Your task to perform on an android device: Clear the shopping cart on amazon. Image 0: 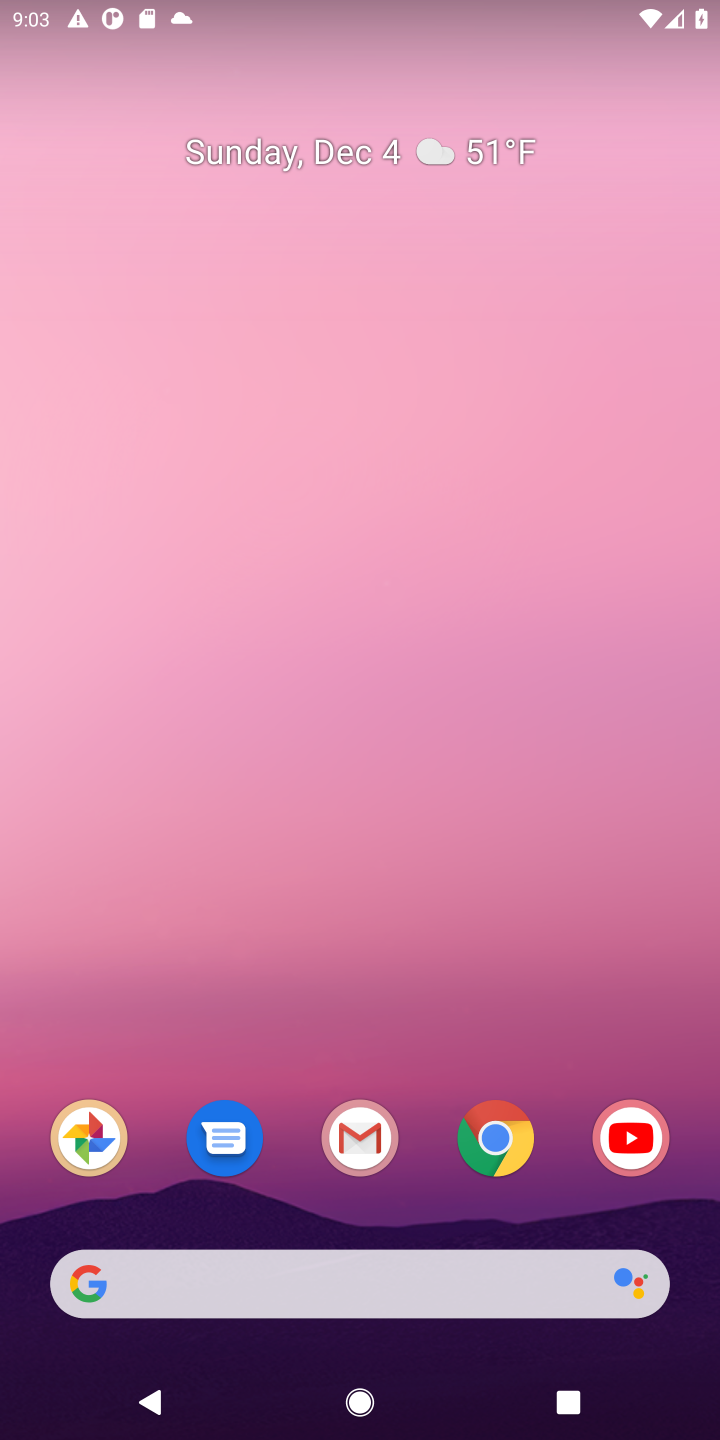
Step 0: click (508, 1147)
Your task to perform on an android device: Clear the shopping cart on amazon. Image 1: 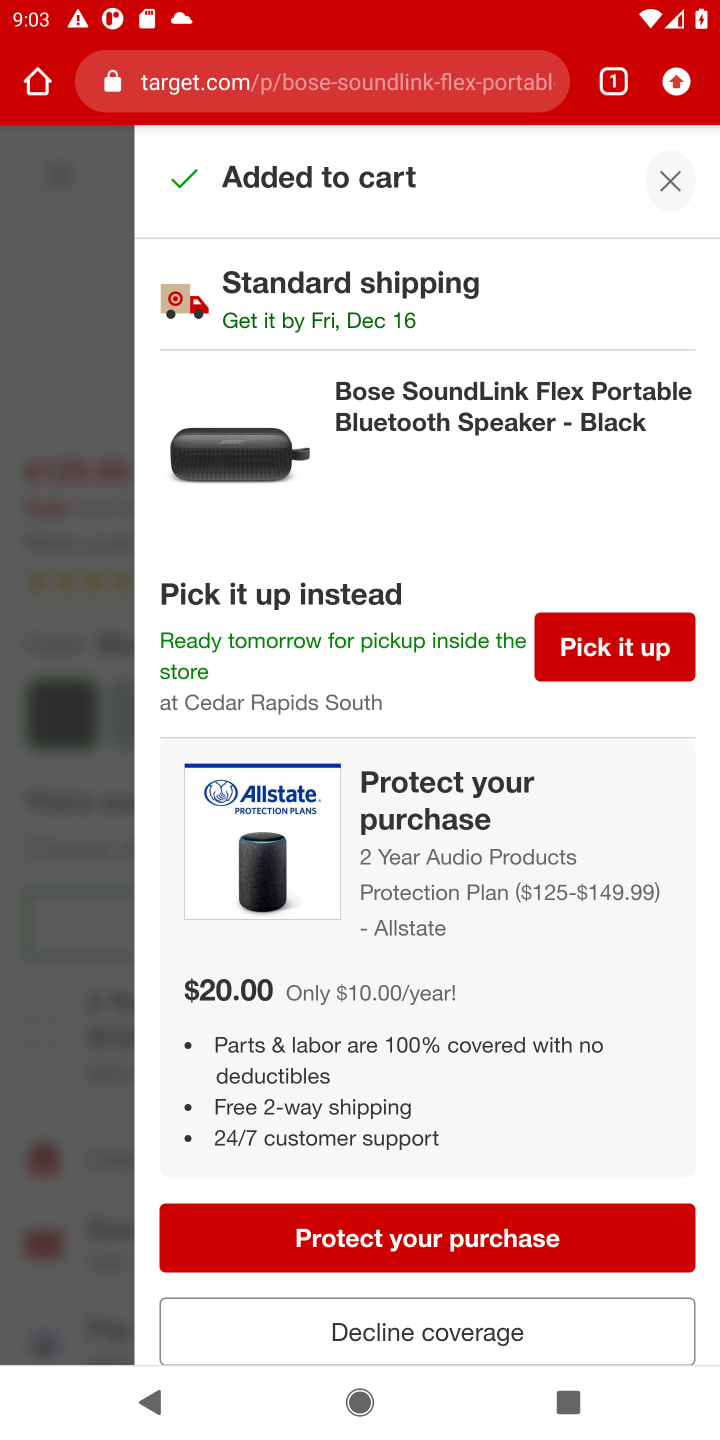
Step 1: click (440, 82)
Your task to perform on an android device: Clear the shopping cart on amazon. Image 2: 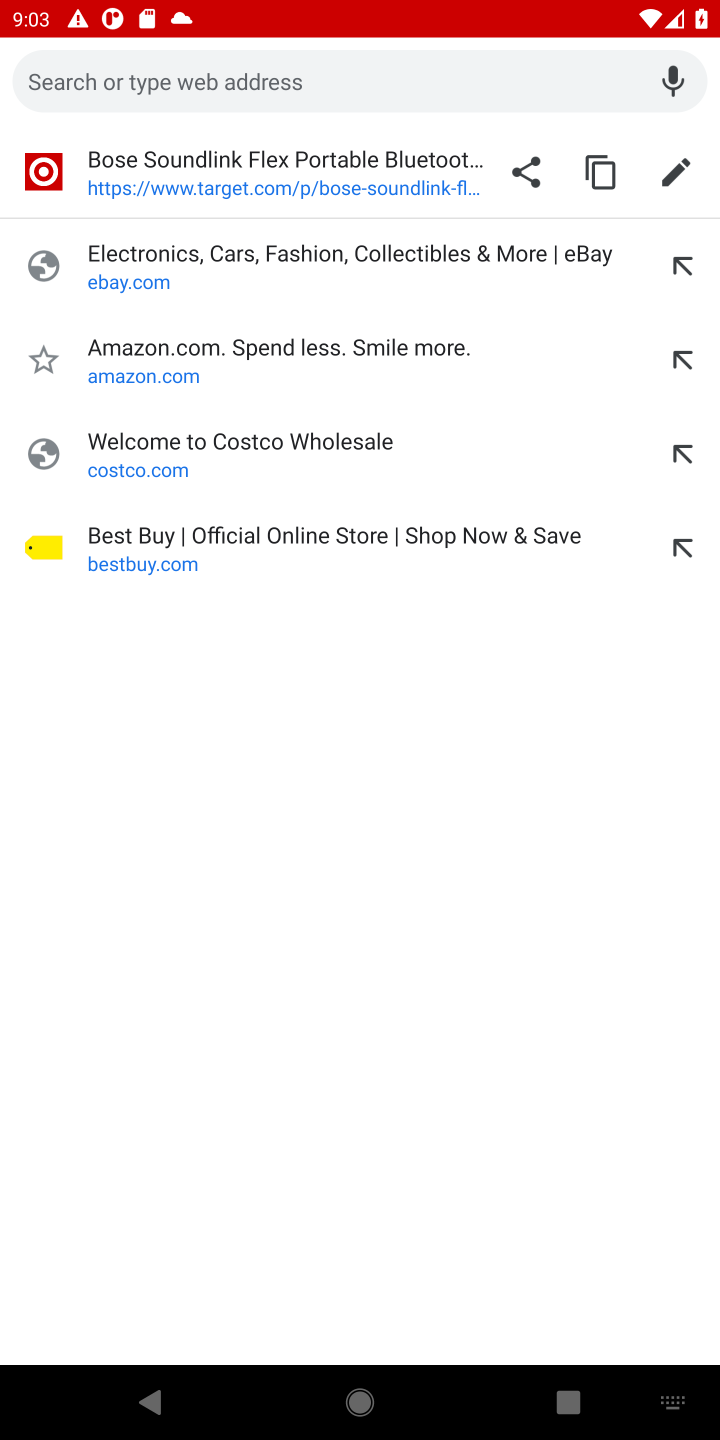
Step 2: click (345, 351)
Your task to perform on an android device: Clear the shopping cart on amazon. Image 3: 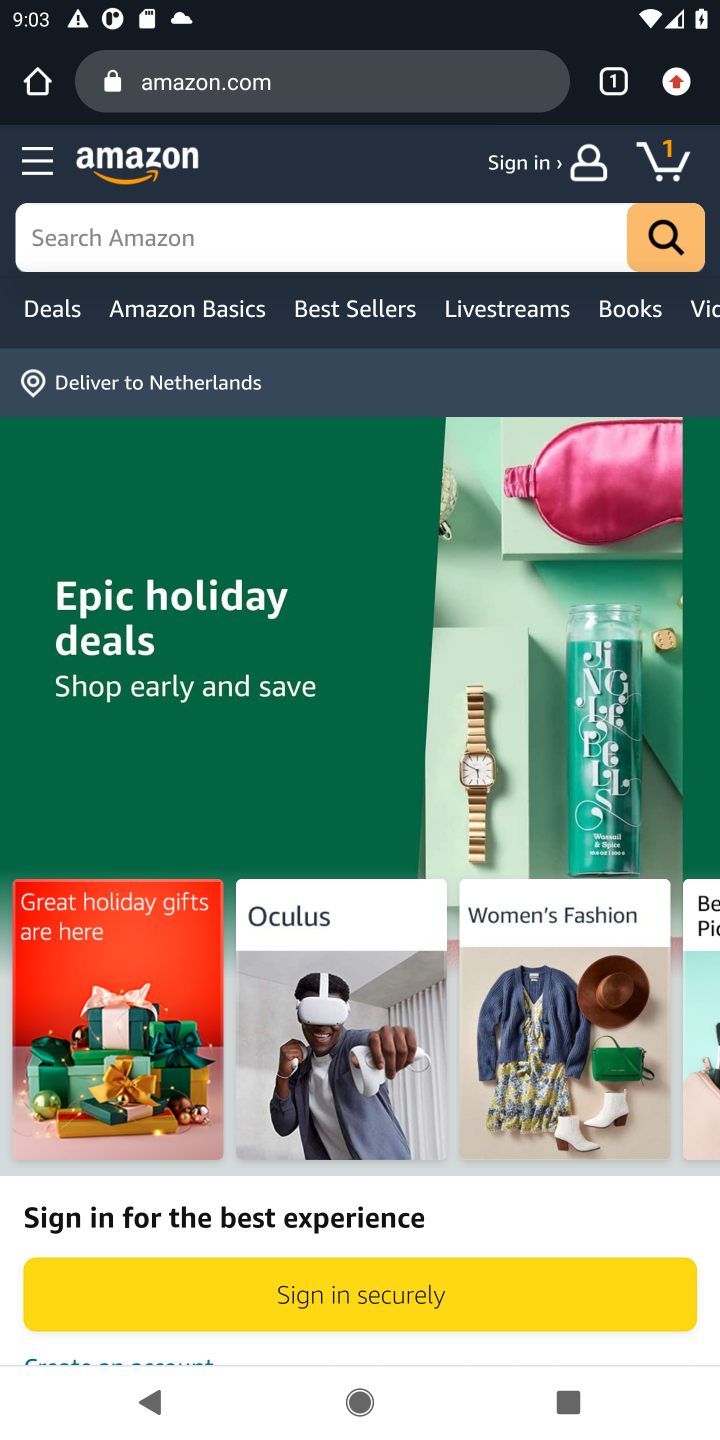
Step 3: click (671, 151)
Your task to perform on an android device: Clear the shopping cart on amazon. Image 4: 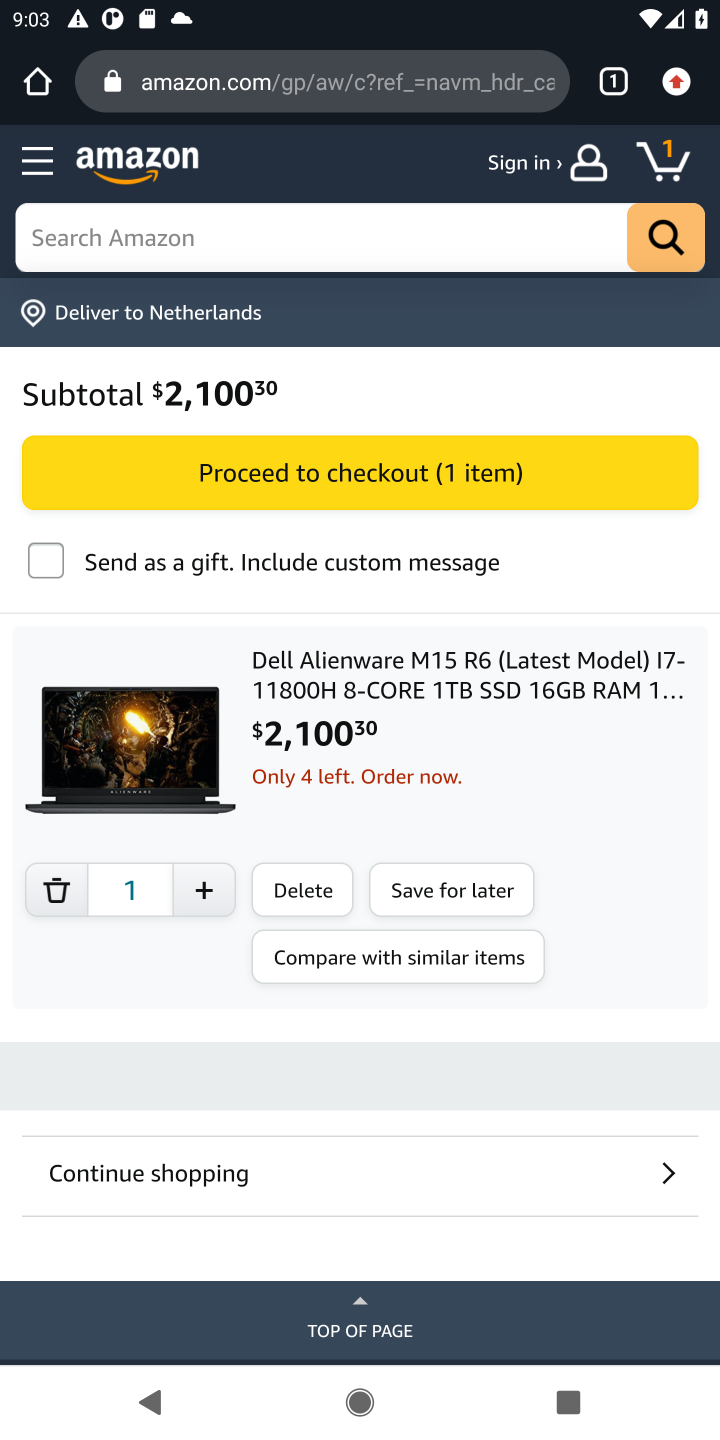
Step 4: click (310, 888)
Your task to perform on an android device: Clear the shopping cart on amazon. Image 5: 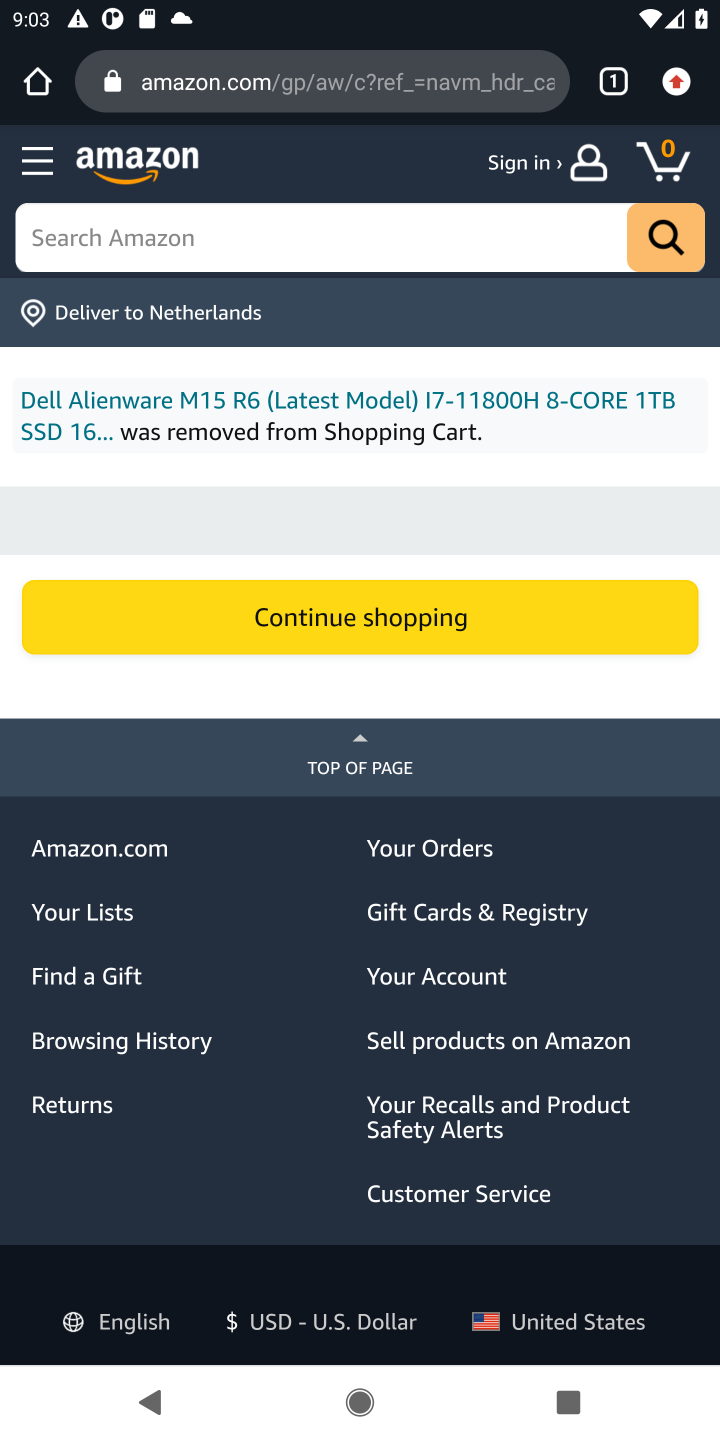
Step 5: task complete